Your task to perform on an android device: Go to Maps Image 0: 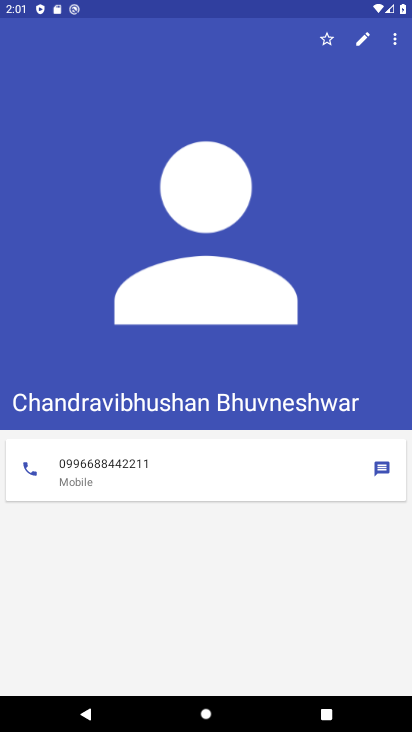
Step 0: press back button
Your task to perform on an android device: Go to Maps Image 1: 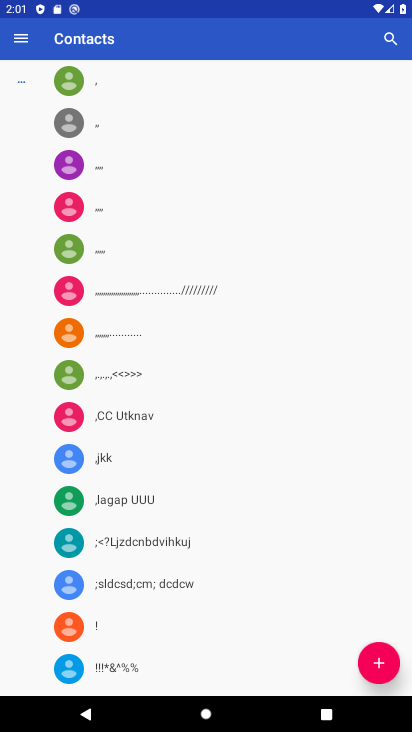
Step 1: press back button
Your task to perform on an android device: Go to Maps Image 2: 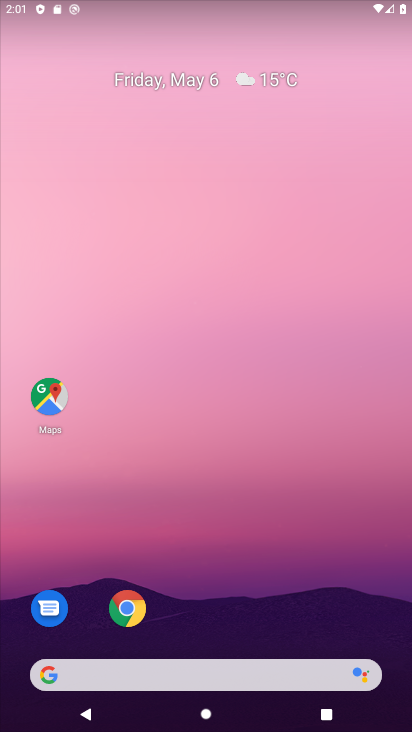
Step 2: click (50, 396)
Your task to perform on an android device: Go to Maps Image 3: 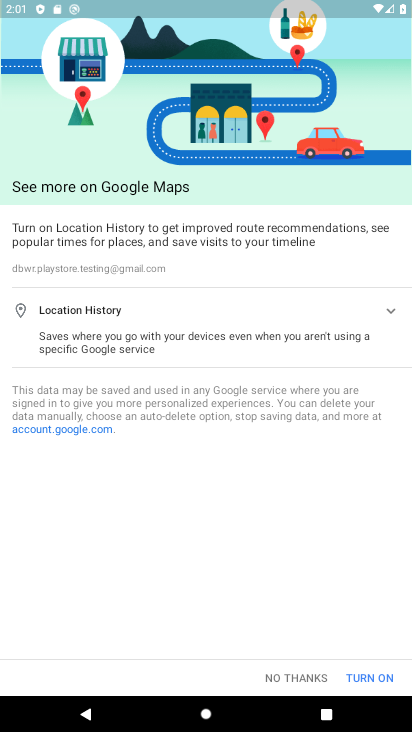
Step 3: click (286, 676)
Your task to perform on an android device: Go to Maps Image 4: 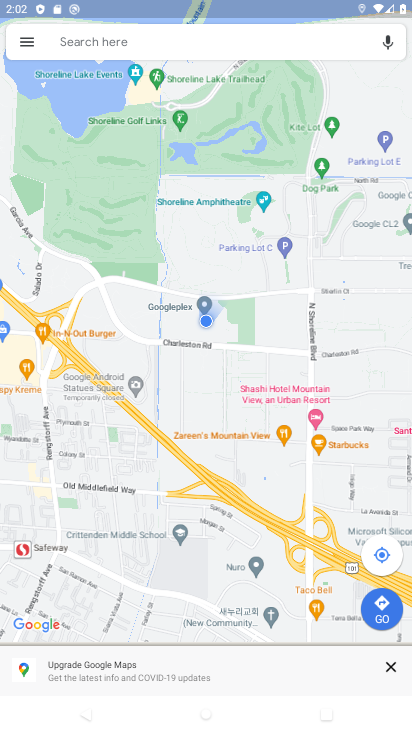
Step 4: task complete